Your task to perform on an android device: turn off notifications in google photos Image 0: 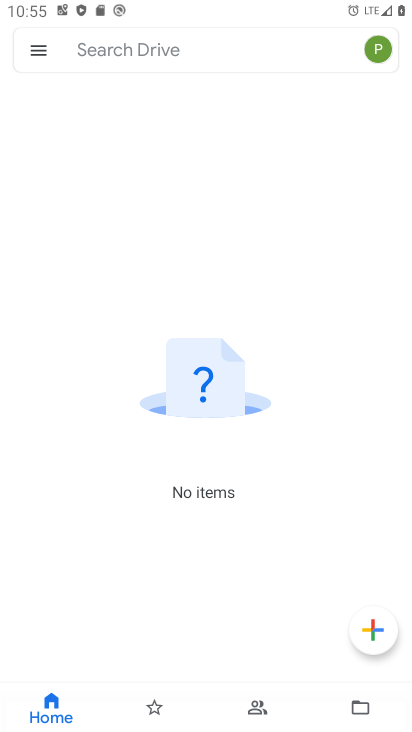
Step 0: press home button
Your task to perform on an android device: turn off notifications in google photos Image 1: 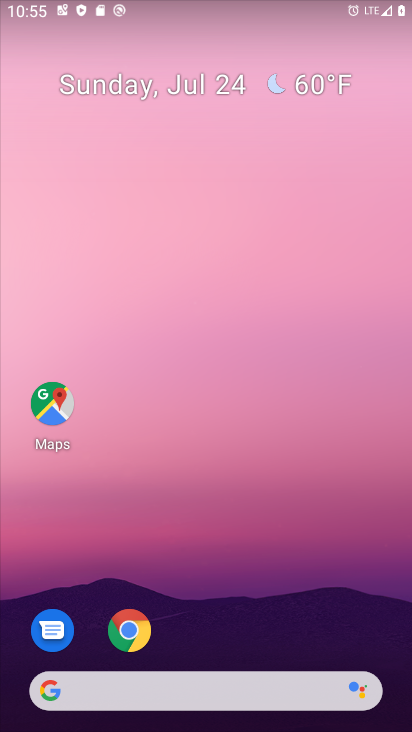
Step 1: drag from (236, 604) to (237, 276)
Your task to perform on an android device: turn off notifications in google photos Image 2: 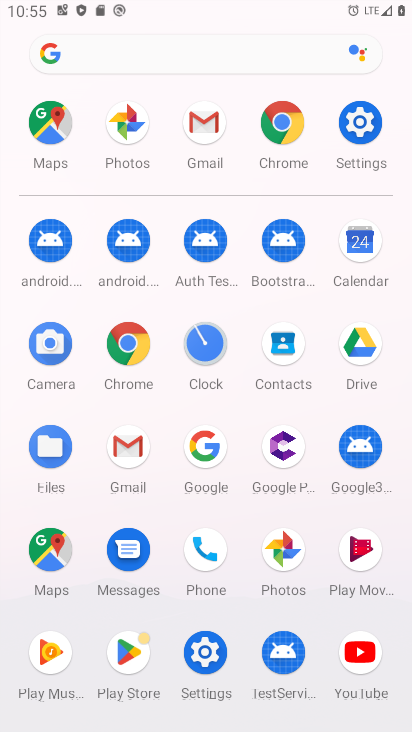
Step 2: click (278, 567)
Your task to perform on an android device: turn off notifications in google photos Image 3: 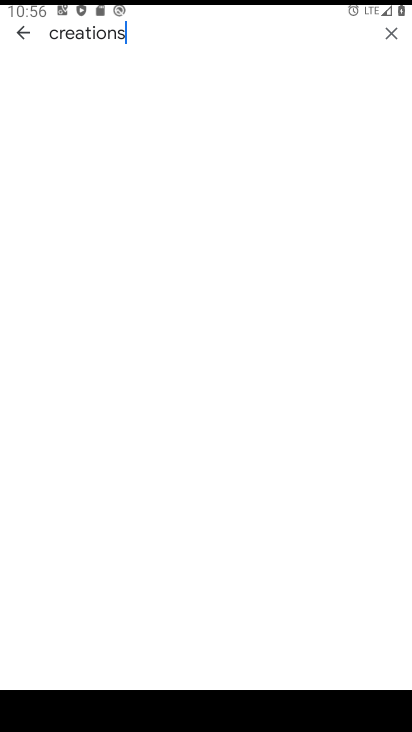
Step 3: click (14, 26)
Your task to perform on an android device: turn off notifications in google photos Image 4: 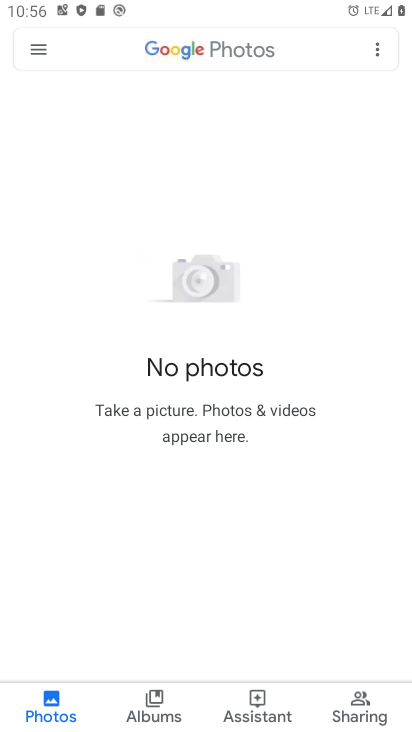
Step 4: click (33, 49)
Your task to perform on an android device: turn off notifications in google photos Image 5: 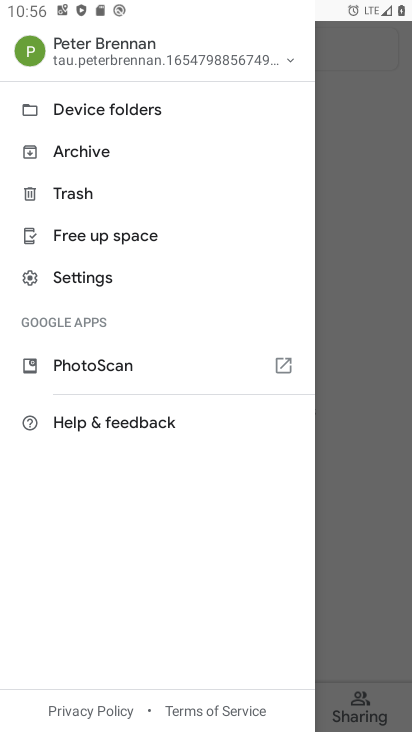
Step 5: click (58, 281)
Your task to perform on an android device: turn off notifications in google photos Image 6: 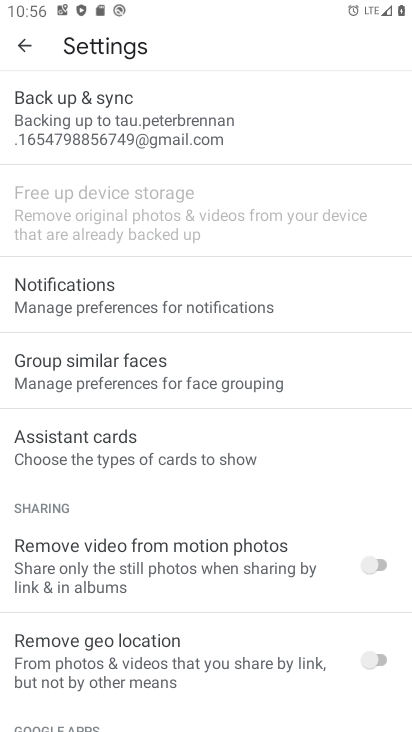
Step 6: click (83, 289)
Your task to perform on an android device: turn off notifications in google photos Image 7: 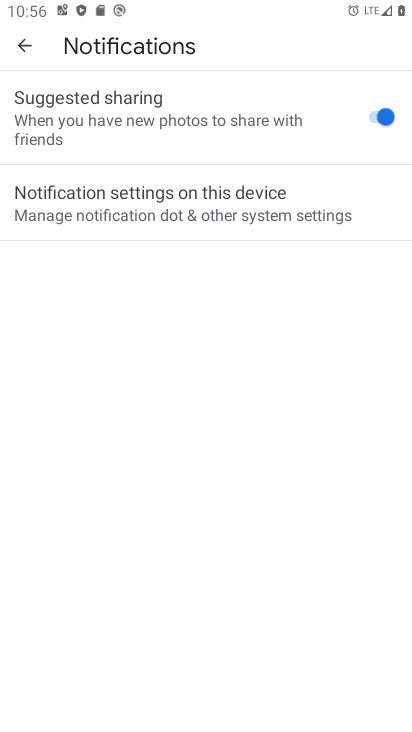
Step 7: click (237, 203)
Your task to perform on an android device: turn off notifications in google photos Image 8: 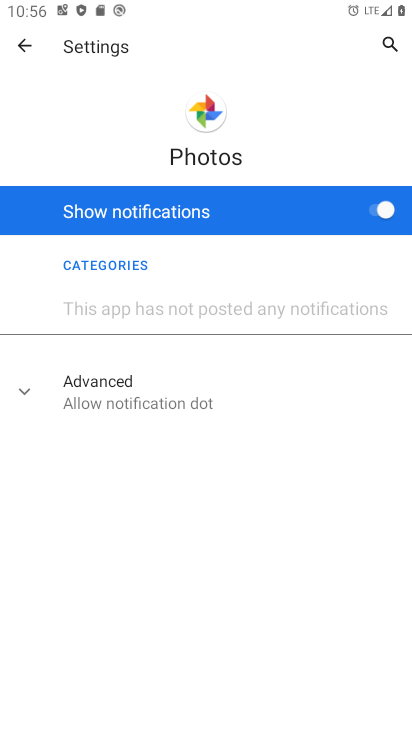
Step 8: click (226, 210)
Your task to perform on an android device: turn off notifications in google photos Image 9: 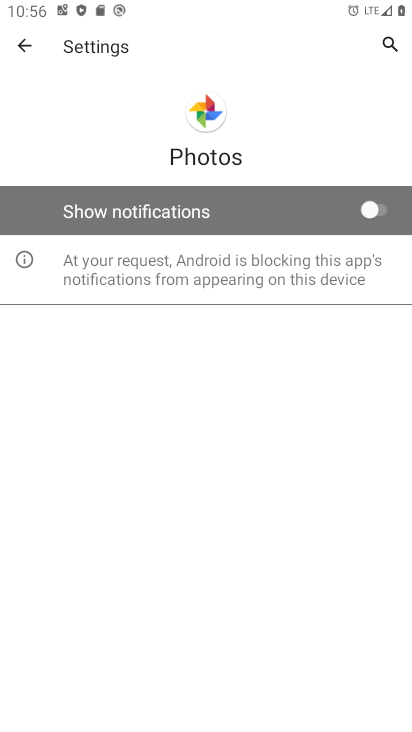
Step 9: click (80, 210)
Your task to perform on an android device: turn off notifications in google photos Image 10: 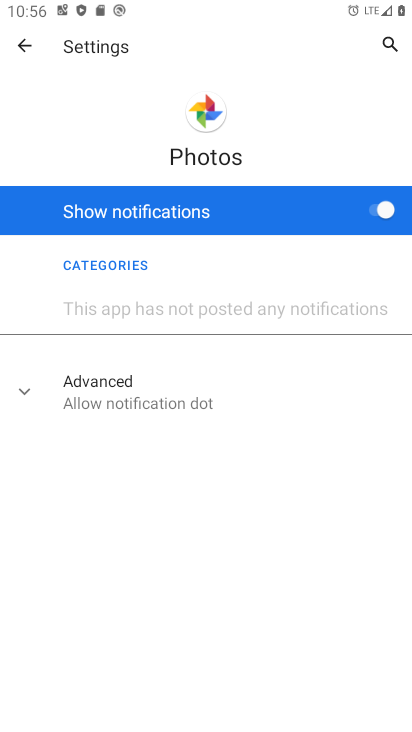
Step 10: click (309, 204)
Your task to perform on an android device: turn off notifications in google photos Image 11: 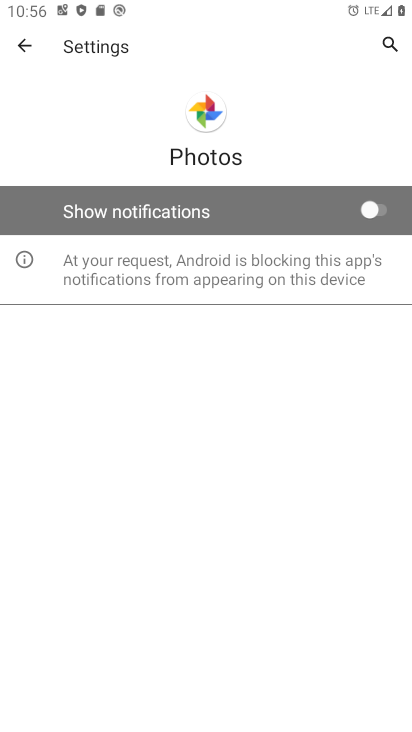
Step 11: task complete